Your task to perform on an android device: turn smart compose on in the gmail app Image 0: 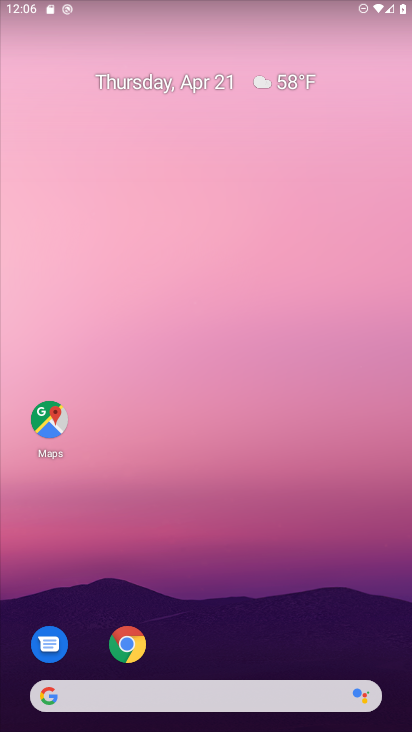
Step 0: click (193, 640)
Your task to perform on an android device: turn smart compose on in the gmail app Image 1: 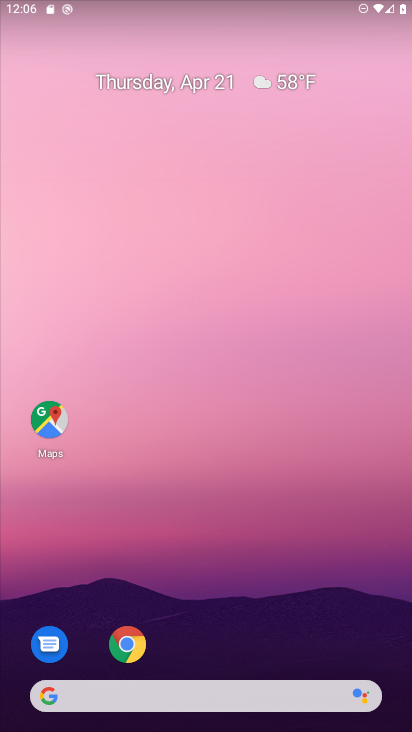
Step 1: drag from (191, 651) to (128, 154)
Your task to perform on an android device: turn smart compose on in the gmail app Image 2: 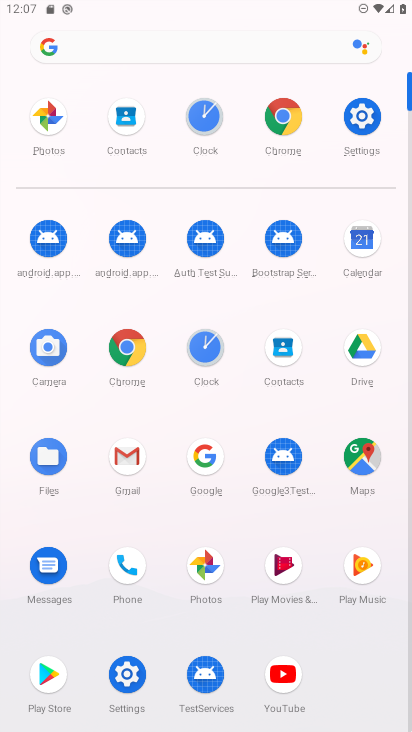
Step 2: click (129, 461)
Your task to perform on an android device: turn smart compose on in the gmail app Image 3: 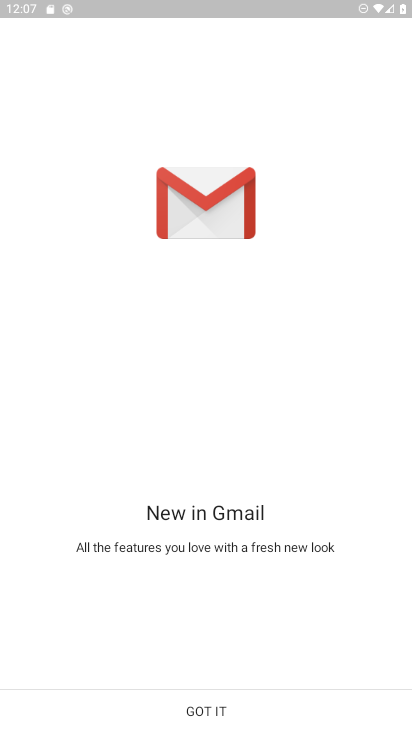
Step 3: click (204, 707)
Your task to perform on an android device: turn smart compose on in the gmail app Image 4: 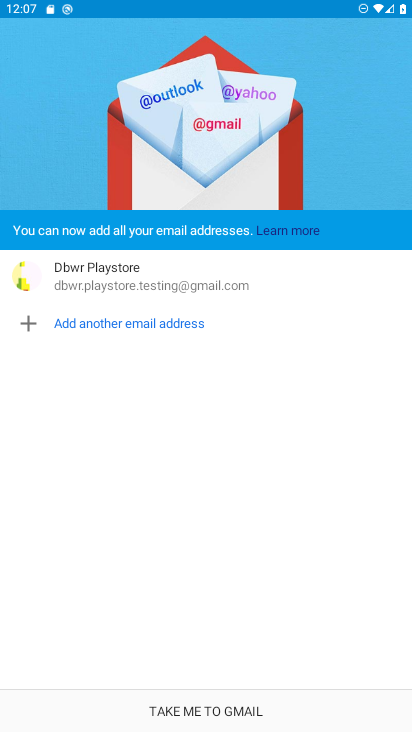
Step 4: click (222, 704)
Your task to perform on an android device: turn smart compose on in the gmail app Image 5: 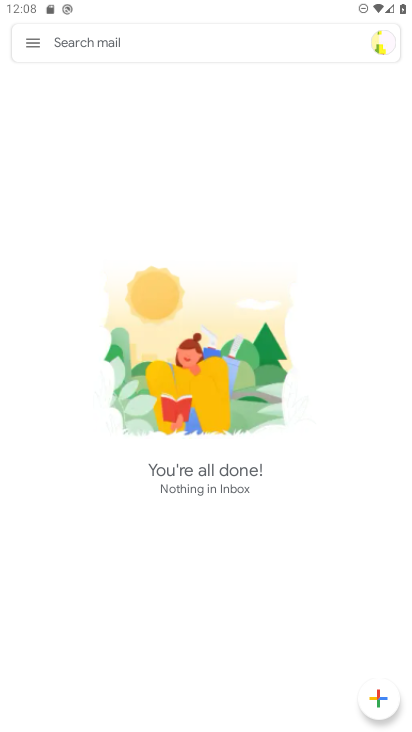
Step 5: click (30, 47)
Your task to perform on an android device: turn smart compose on in the gmail app Image 6: 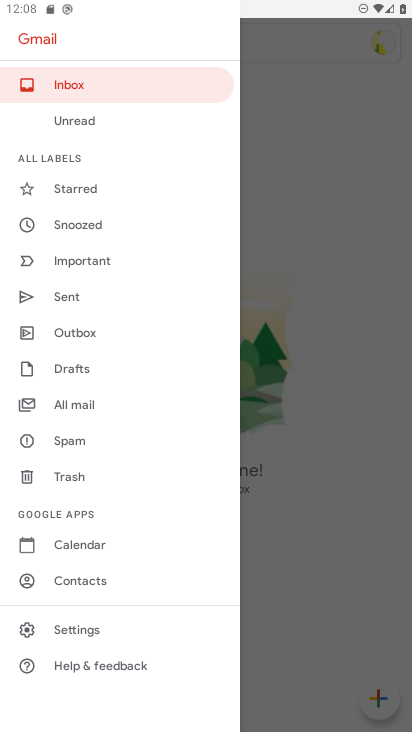
Step 6: click (89, 635)
Your task to perform on an android device: turn smart compose on in the gmail app Image 7: 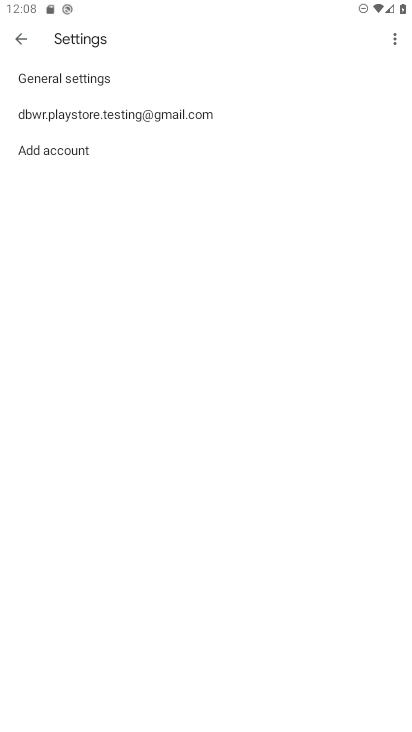
Step 7: click (94, 111)
Your task to perform on an android device: turn smart compose on in the gmail app Image 8: 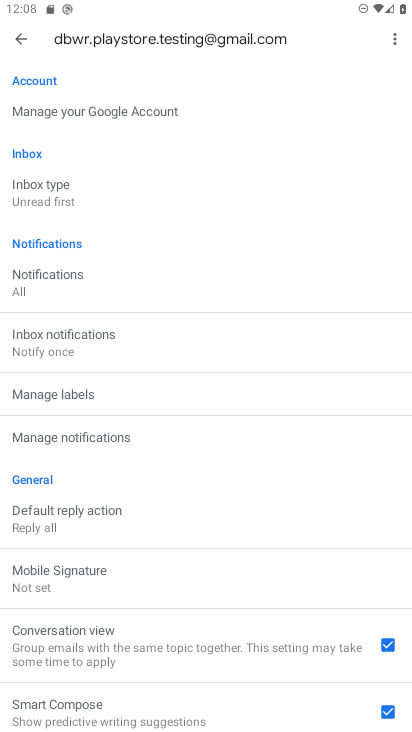
Step 8: task complete